Your task to perform on an android device: Open maps Image 0: 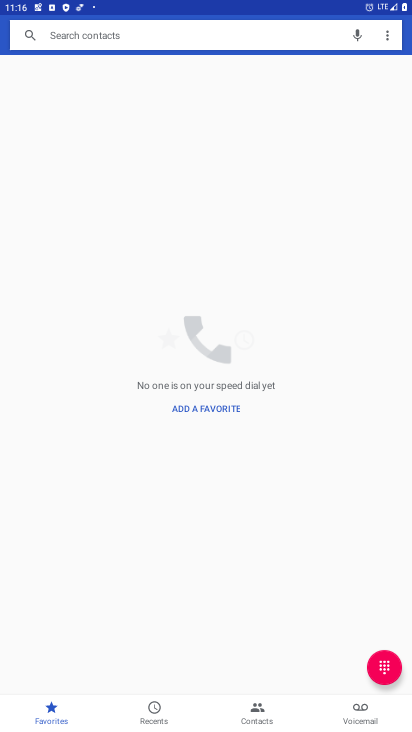
Step 0: press home button
Your task to perform on an android device: Open maps Image 1: 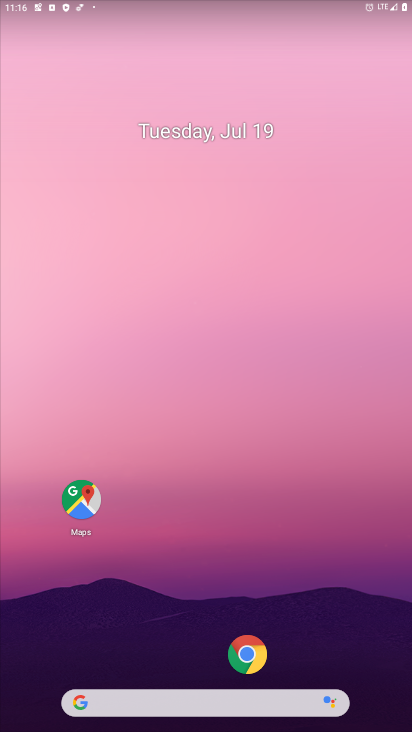
Step 1: click (91, 506)
Your task to perform on an android device: Open maps Image 2: 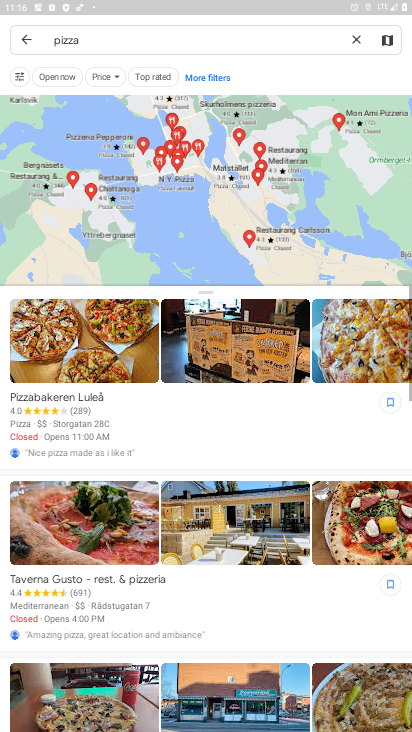
Step 2: task complete